Your task to perform on an android device: turn vacation reply on in the gmail app Image 0: 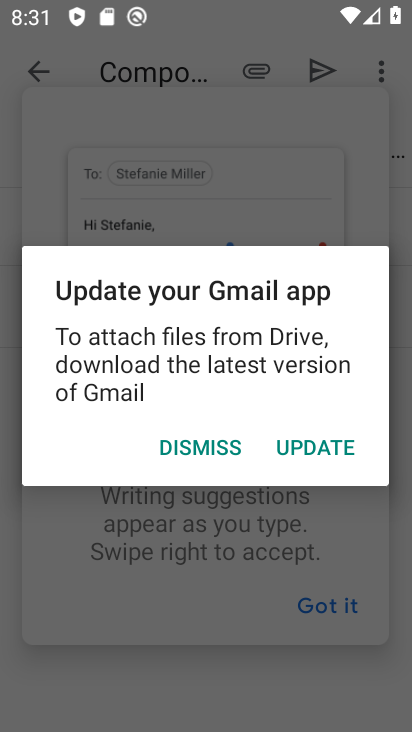
Step 0: press home button
Your task to perform on an android device: turn vacation reply on in the gmail app Image 1: 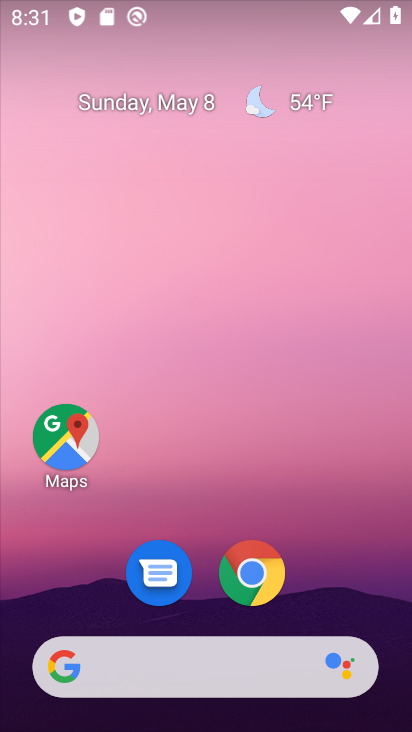
Step 1: drag from (234, 715) to (255, 269)
Your task to perform on an android device: turn vacation reply on in the gmail app Image 2: 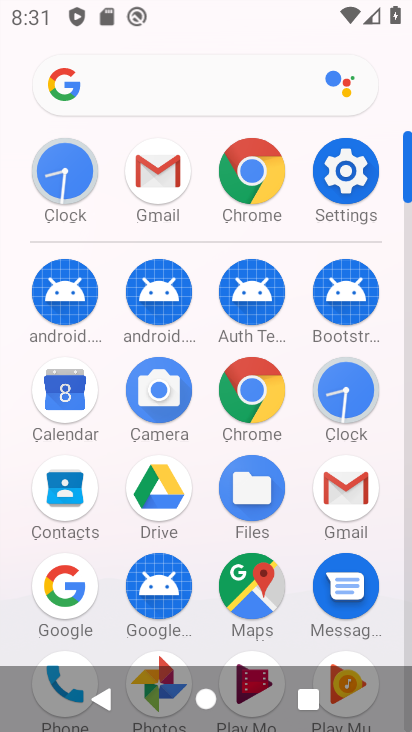
Step 2: click (364, 490)
Your task to perform on an android device: turn vacation reply on in the gmail app Image 3: 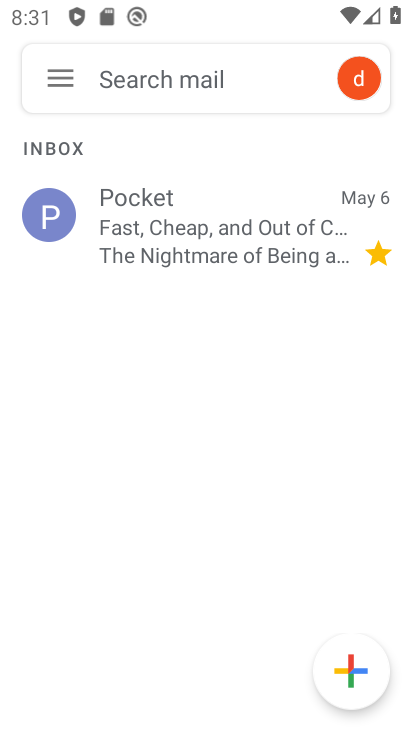
Step 3: click (64, 75)
Your task to perform on an android device: turn vacation reply on in the gmail app Image 4: 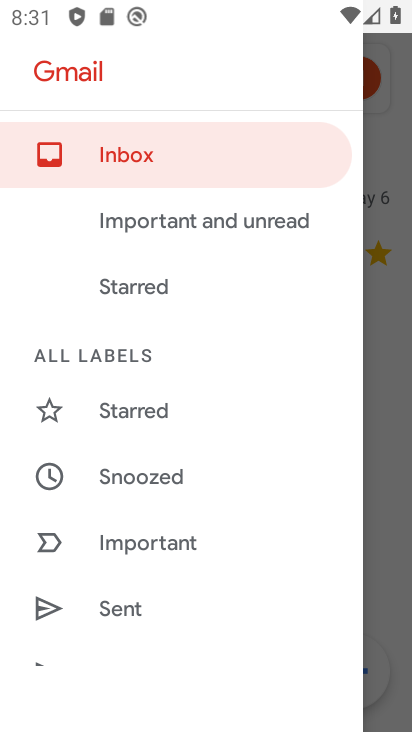
Step 4: drag from (176, 623) to (200, 335)
Your task to perform on an android device: turn vacation reply on in the gmail app Image 5: 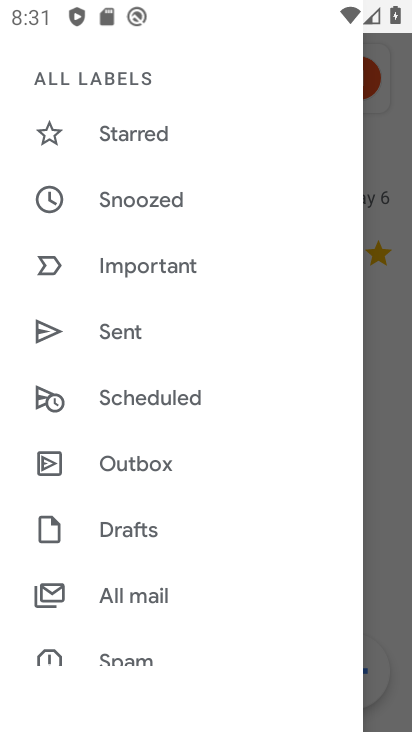
Step 5: drag from (170, 644) to (169, 353)
Your task to perform on an android device: turn vacation reply on in the gmail app Image 6: 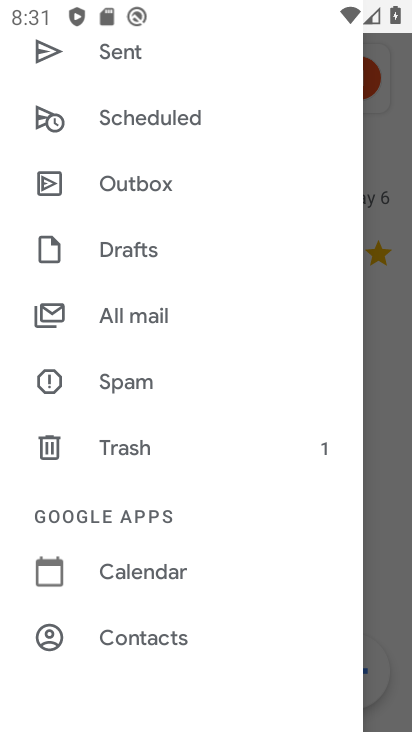
Step 6: drag from (168, 633) to (168, 288)
Your task to perform on an android device: turn vacation reply on in the gmail app Image 7: 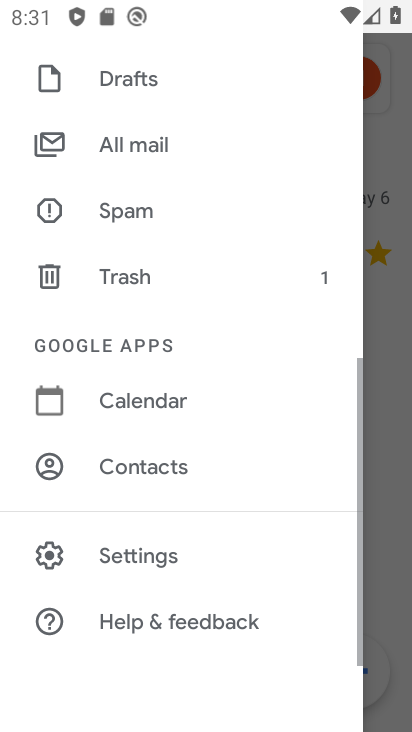
Step 7: click (154, 545)
Your task to perform on an android device: turn vacation reply on in the gmail app Image 8: 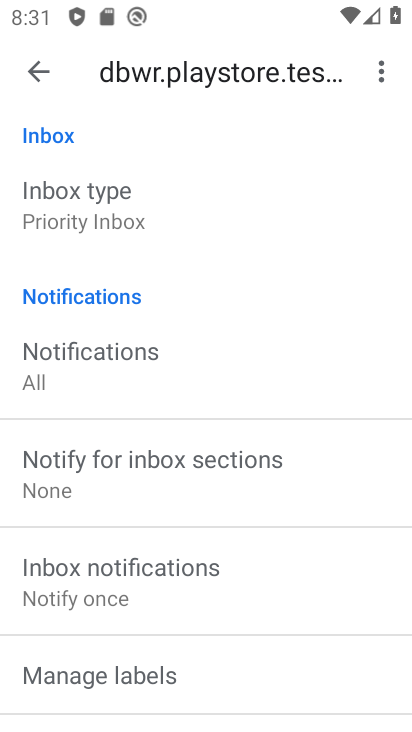
Step 8: drag from (130, 654) to (132, 285)
Your task to perform on an android device: turn vacation reply on in the gmail app Image 9: 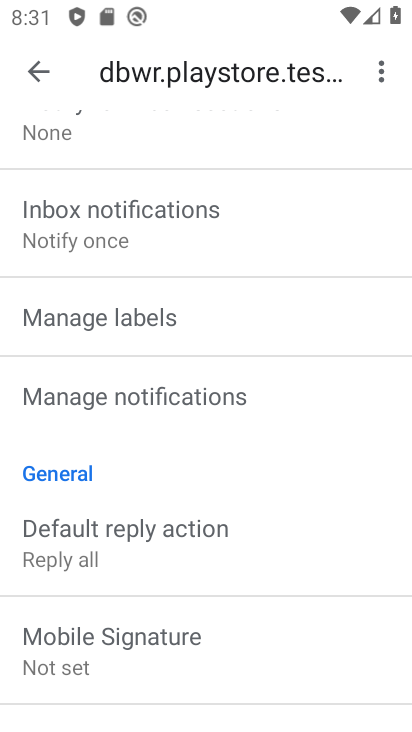
Step 9: drag from (158, 676) to (162, 365)
Your task to perform on an android device: turn vacation reply on in the gmail app Image 10: 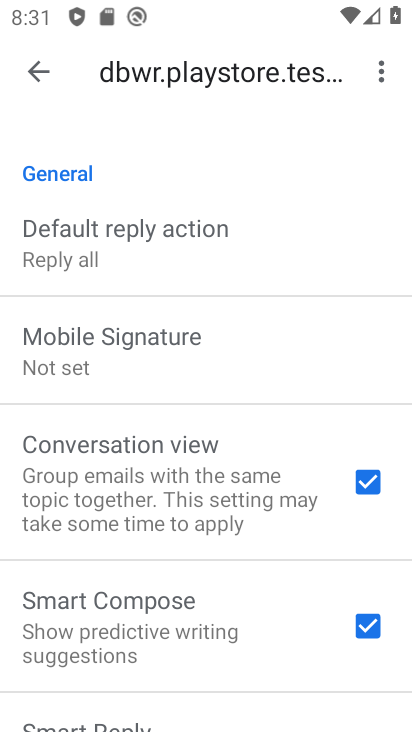
Step 10: drag from (174, 683) to (153, 361)
Your task to perform on an android device: turn vacation reply on in the gmail app Image 11: 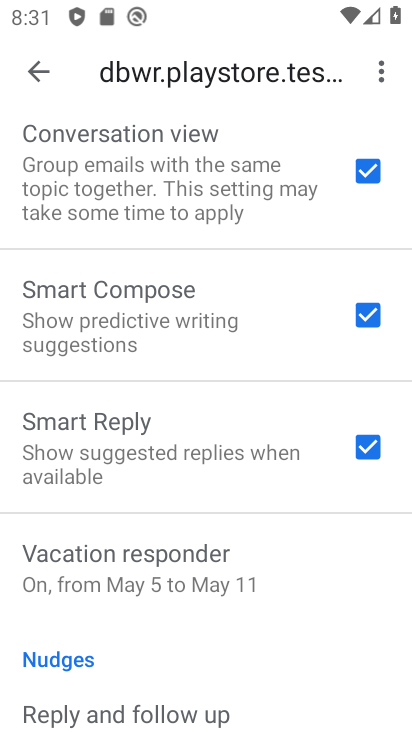
Step 11: drag from (166, 673) to (170, 385)
Your task to perform on an android device: turn vacation reply on in the gmail app Image 12: 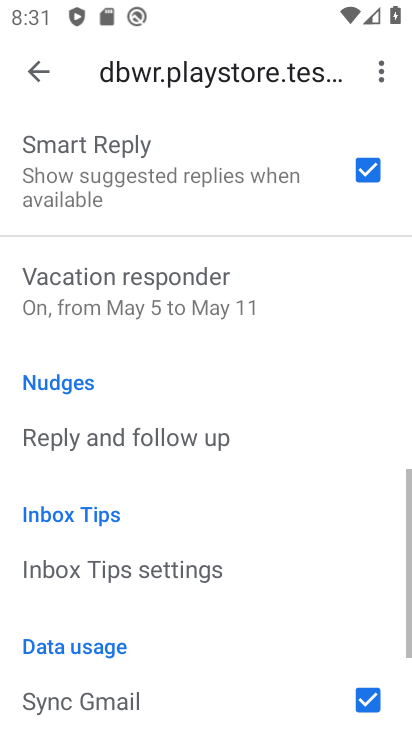
Step 12: click (153, 284)
Your task to perform on an android device: turn vacation reply on in the gmail app Image 13: 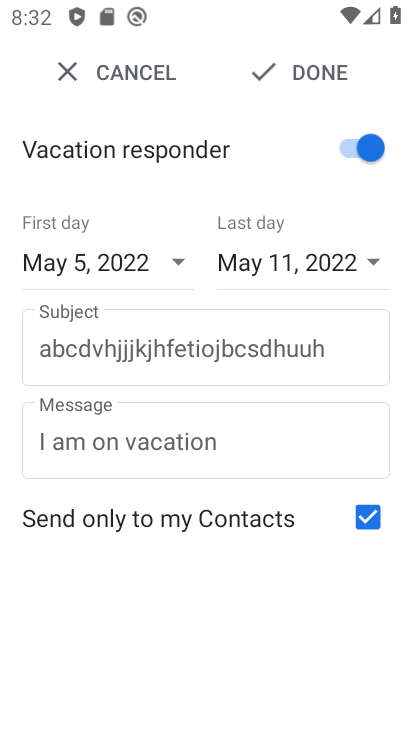
Step 13: task complete